Your task to perform on an android device: Open Chrome and go to settings Image 0: 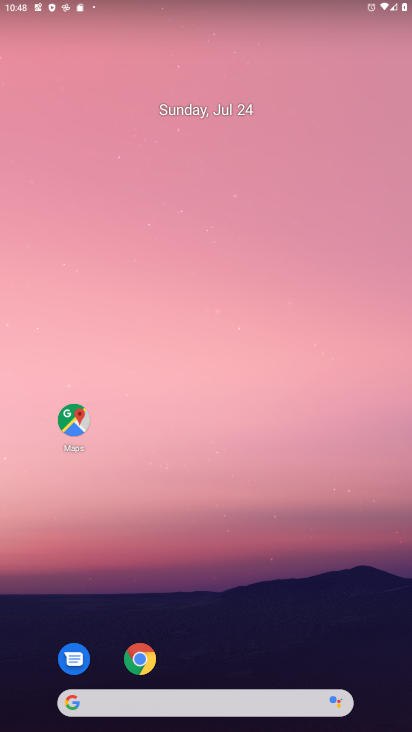
Step 0: click (136, 659)
Your task to perform on an android device: Open Chrome and go to settings Image 1: 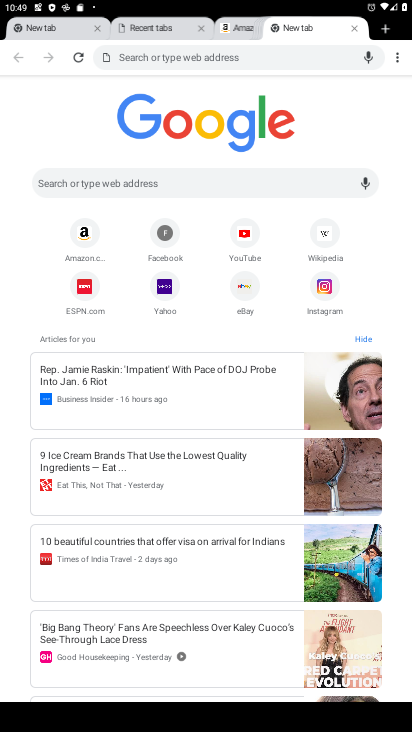
Step 1: click (394, 58)
Your task to perform on an android device: Open Chrome and go to settings Image 2: 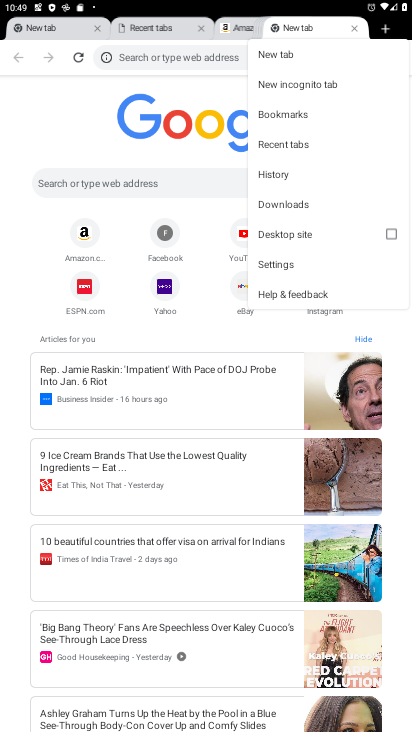
Step 2: click (273, 263)
Your task to perform on an android device: Open Chrome and go to settings Image 3: 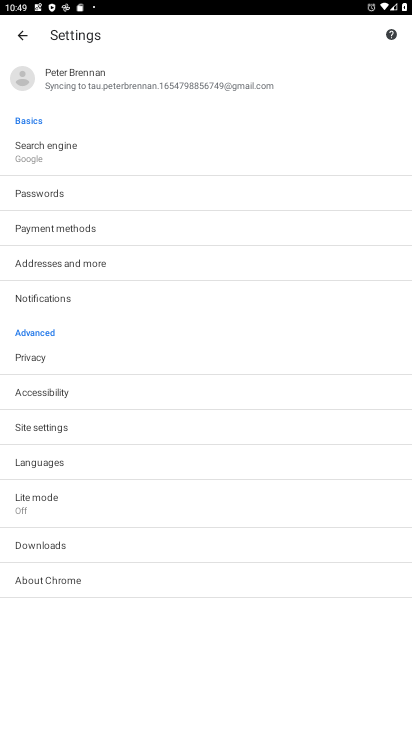
Step 3: task complete